Your task to perform on an android device: Is it going to rain today? Image 0: 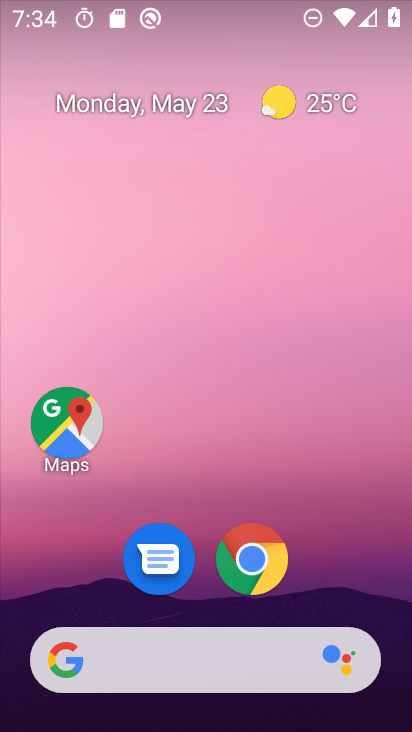
Step 0: drag from (386, 624) to (319, 47)
Your task to perform on an android device: Is it going to rain today? Image 1: 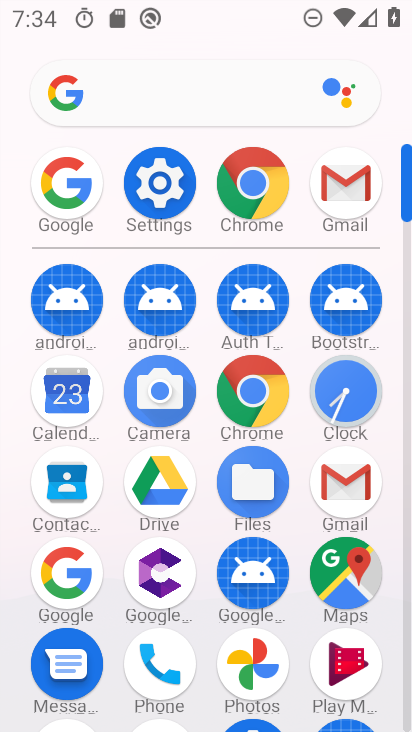
Step 1: click (91, 199)
Your task to perform on an android device: Is it going to rain today? Image 2: 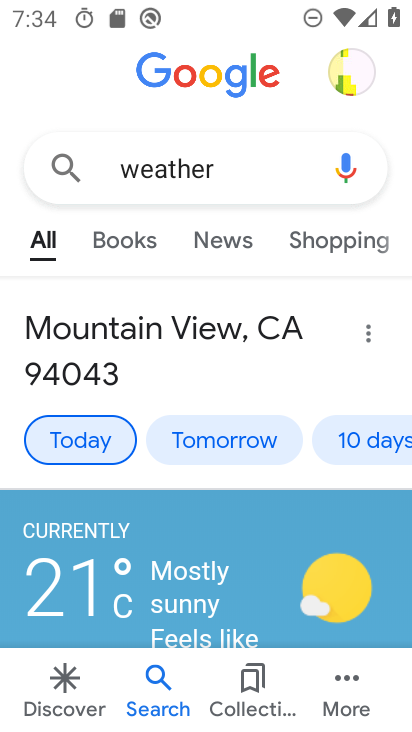
Step 2: press back button
Your task to perform on an android device: Is it going to rain today? Image 3: 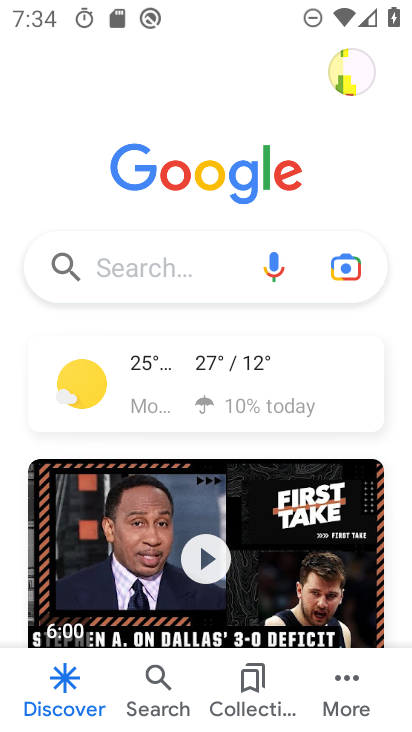
Step 3: click (133, 263)
Your task to perform on an android device: Is it going to rain today? Image 4: 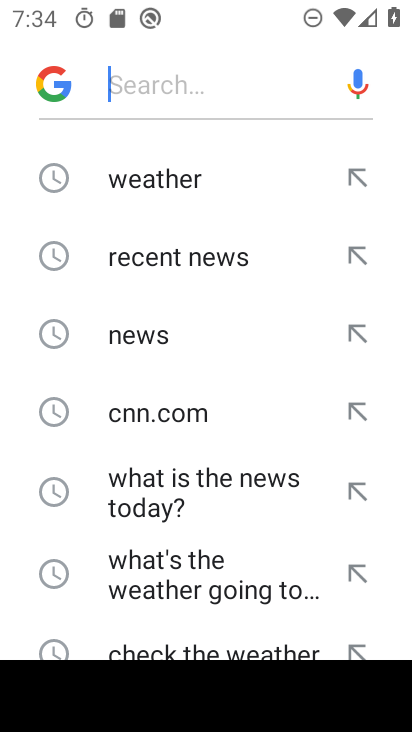
Step 4: drag from (159, 626) to (231, 214)
Your task to perform on an android device: Is it going to rain today? Image 5: 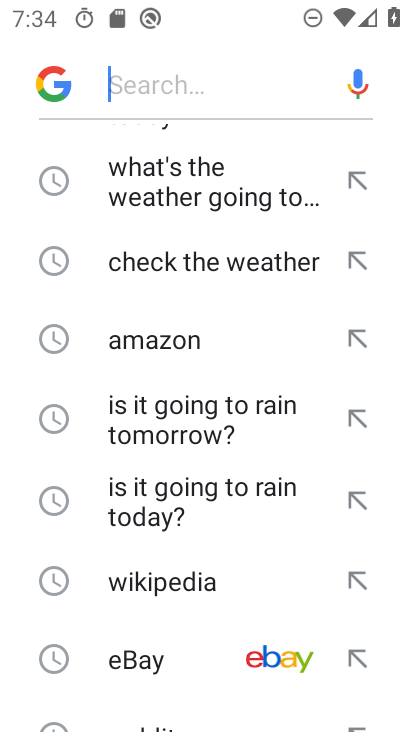
Step 5: click (166, 531)
Your task to perform on an android device: Is it going to rain today? Image 6: 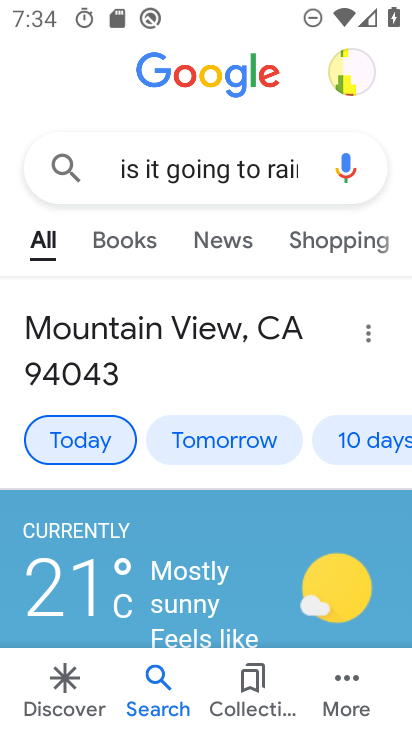
Step 6: task complete